Your task to perform on an android device: check battery use Image 0: 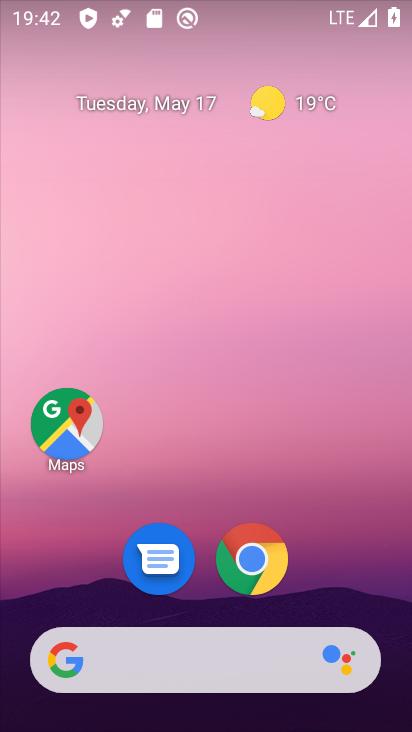
Step 0: drag from (220, 629) to (282, 166)
Your task to perform on an android device: check battery use Image 1: 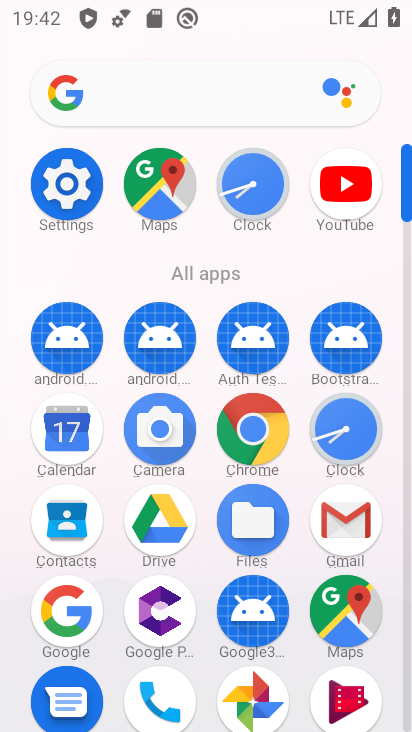
Step 1: click (71, 213)
Your task to perform on an android device: check battery use Image 2: 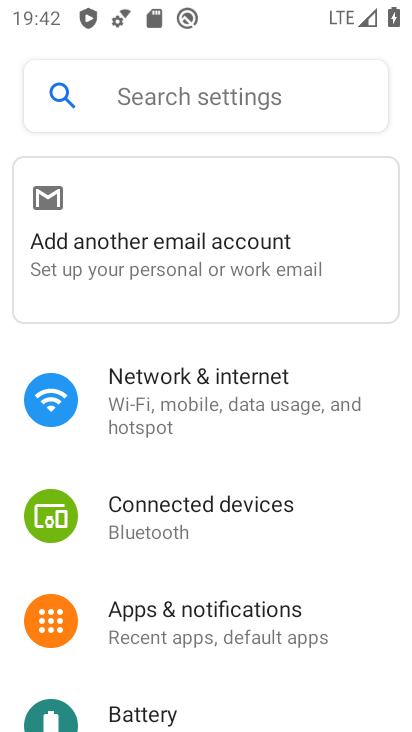
Step 2: click (131, 694)
Your task to perform on an android device: check battery use Image 3: 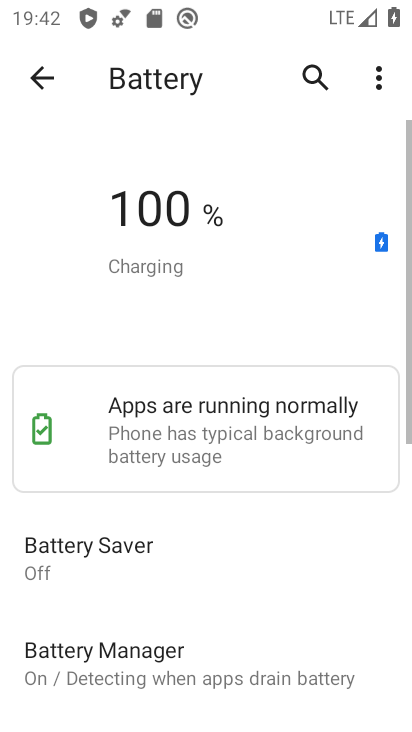
Step 3: click (378, 79)
Your task to perform on an android device: check battery use Image 4: 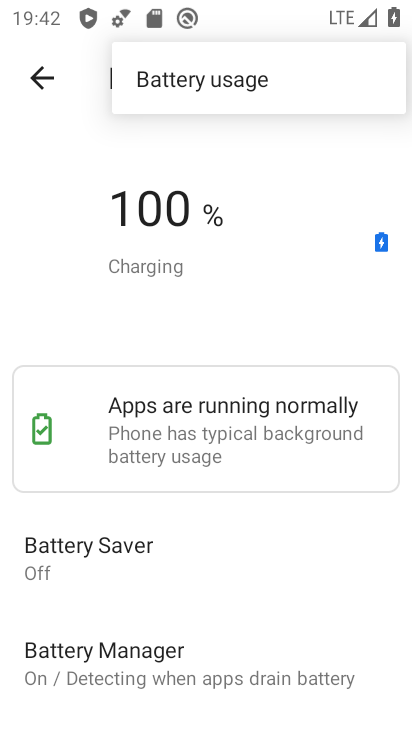
Step 4: click (311, 82)
Your task to perform on an android device: check battery use Image 5: 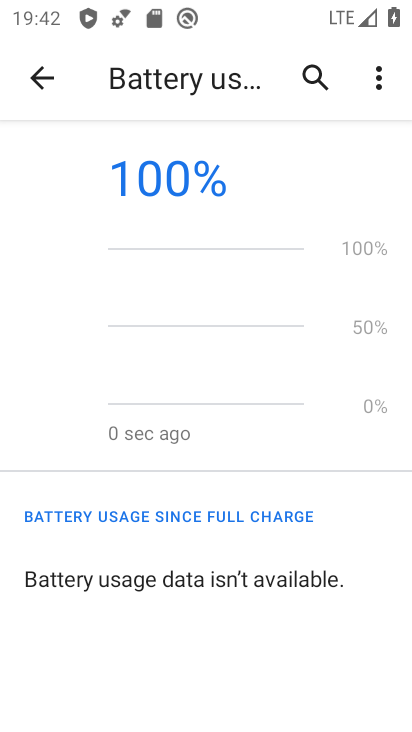
Step 5: task complete